Your task to perform on an android device: read, delete, or share a saved page in the chrome app Image 0: 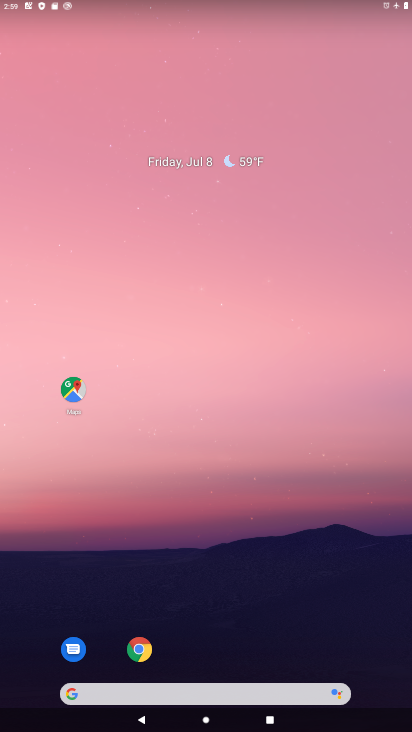
Step 0: click (271, 154)
Your task to perform on an android device: read, delete, or share a saved page in the chrome app Image 1: 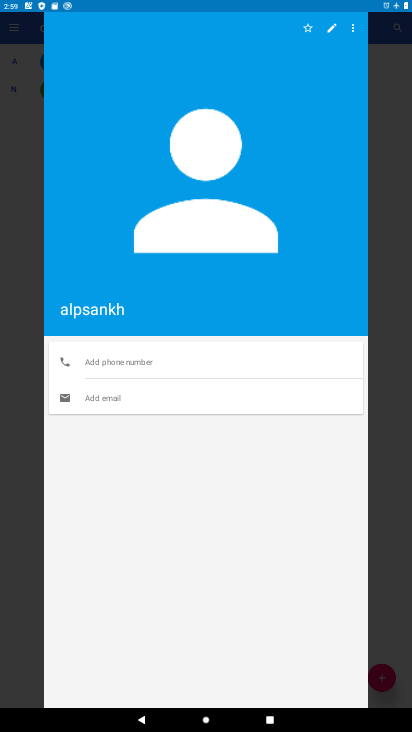
Step 1: press home button
Your task to perform on an android device: read, delete, or share a saved page in the chrome app Image 2: 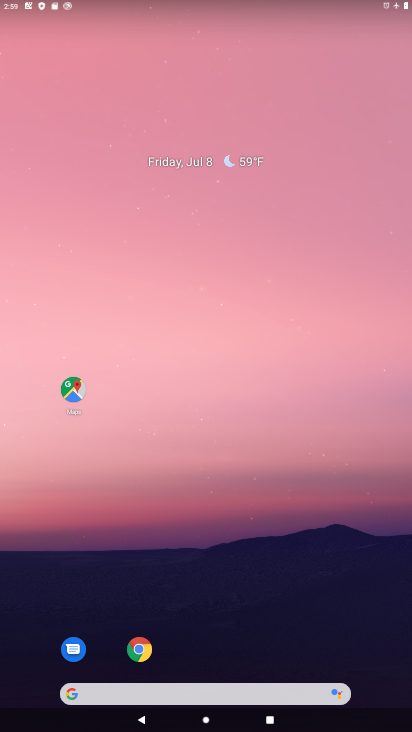
Step 2: drag from (293, 637) to (234, 229)
Your task to perform on an android device: read, delete, or share a saved page in the chrome app Image 3: 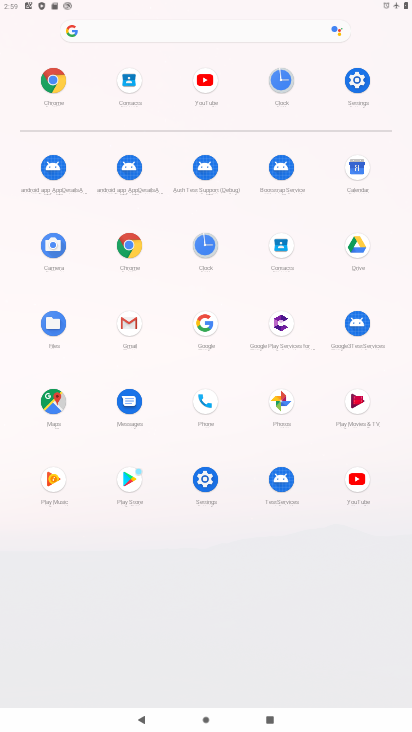
Step 3: click (128, 244)
Your task to perform on an android device: read, delete, or share a saved page in the chrome app Image 4: 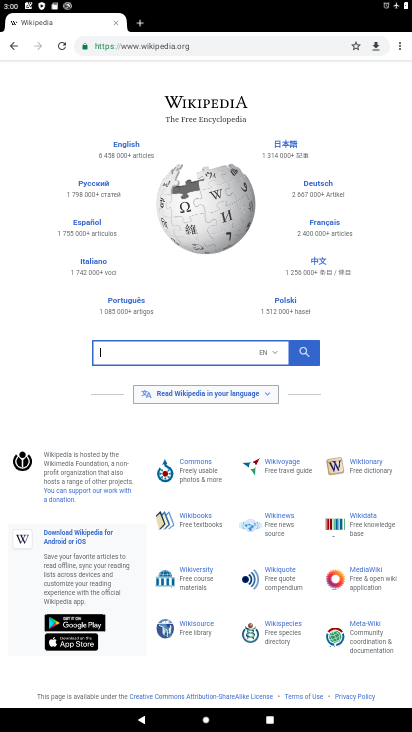
Step 4: task complete